Your task to perform on an android device: change alarm snooze length Image 0: 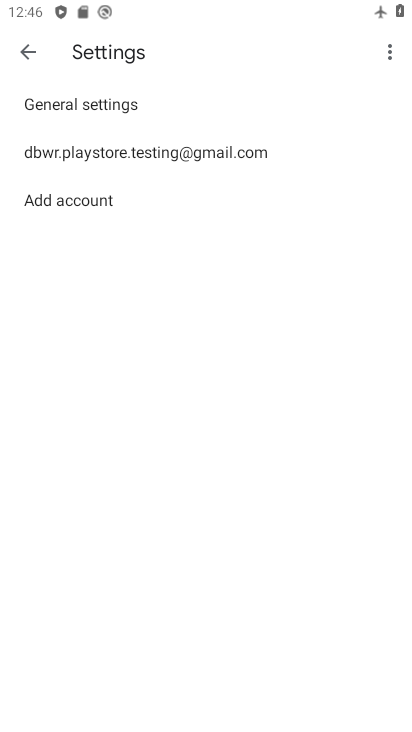
Step 0: press home button
Your task to perform on an android device: change alarm snooze length Image 1: 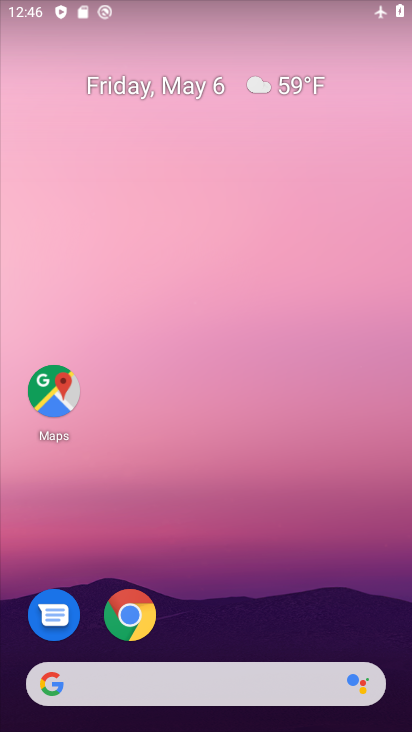
Step 1: drag from (257, 584) to (299, 26)
Your task to perform on an android device: change alarm snooze length Image 2: 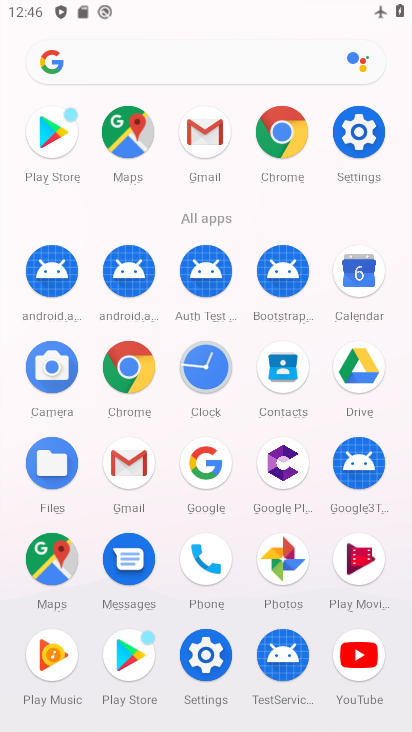
Step 2: click (214, 371)
Your task to perform on an android device: change alarm snooze length Image 3: 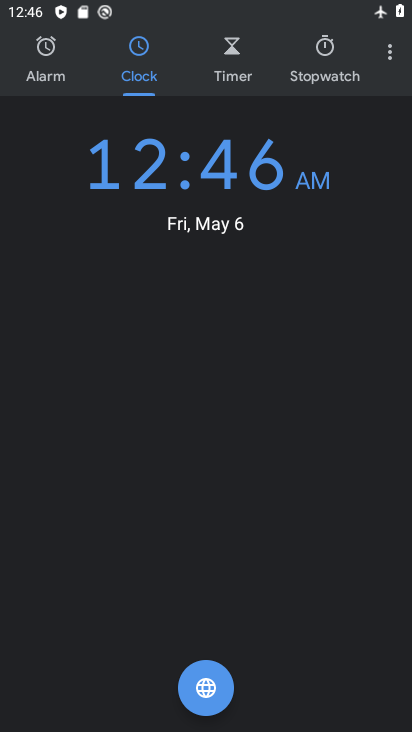
Step 3: click (388, 65)
Your task to perform on an android device: change alarm snooze length Image 4: 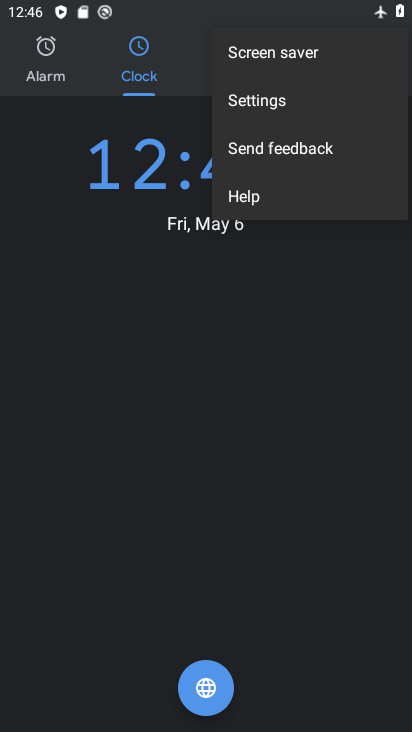
Step 4: click (334, 107)
Your task to perform on an android device: change alarm snooze length Image 5: 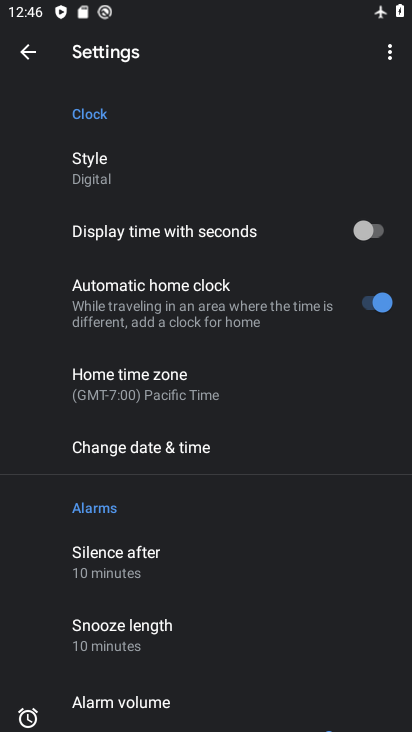
Step 5: click (156, 628)
Your task to perform on an android device: change alarm snooze length Image 6: 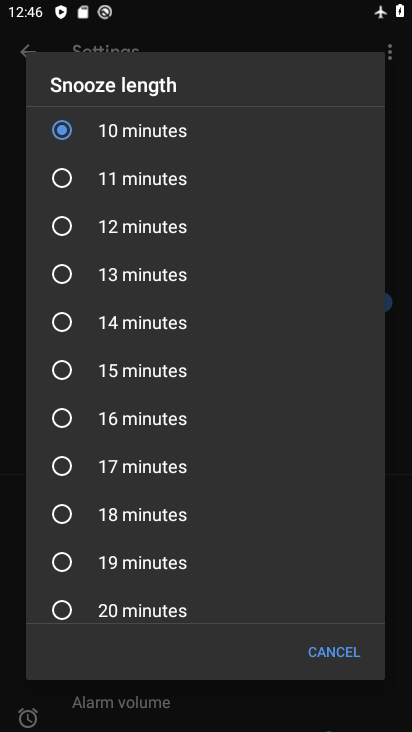
Step 6: click (65, 366)
Your task to perform on an android device: change alarm snooze length Image 7: 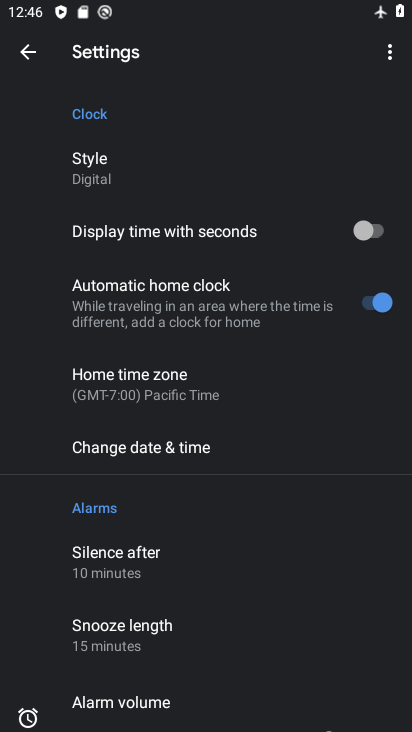
Step 7: task complete